Your task to perform on an android device: turn off translation in the chrome app Image 0: 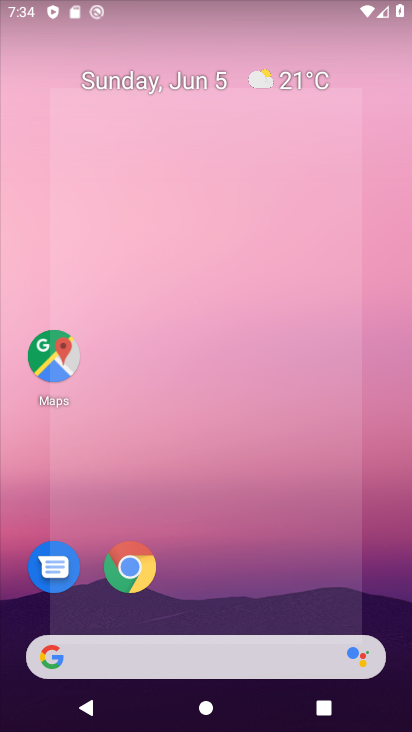
Step 0: click (136, 566)
Your task to perform on an android device: turn off translation in the chrome app Image 1: 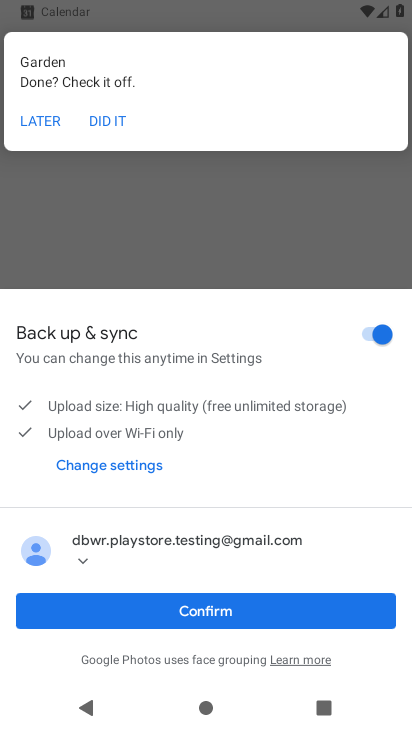
Step 1: click (234, 610)
Your task to perform on an android device: turn off translation in the chrome app Image 2: 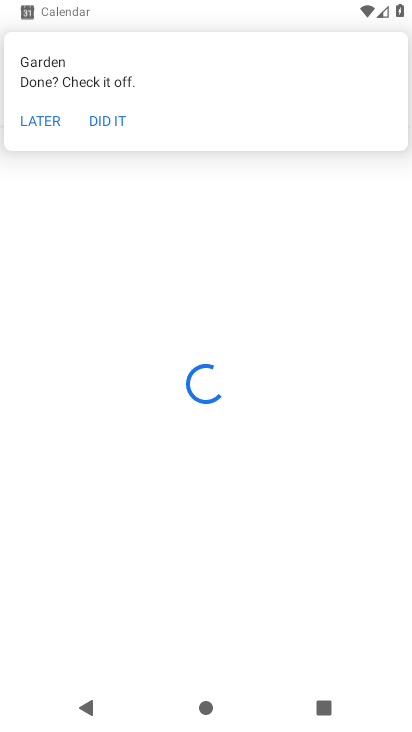
Step 2: press home button
Your task to perform on an android device: turn off translation in the chrome app Image 3: 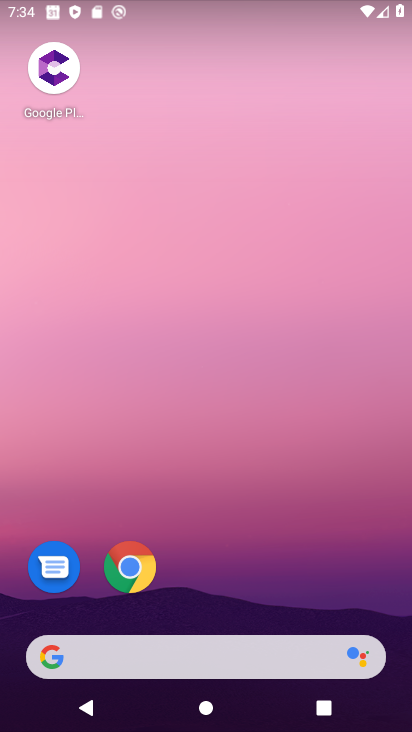
Step 3: click (143, 572)
Your task to perform on an android device: turn off translation in the chrome app Image 4: 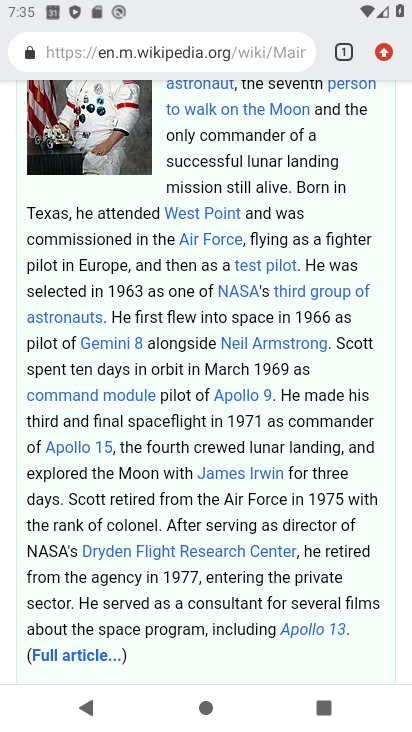
Step 4: click (337, 47)
Your task to perform on an android device: turn off translation in the chrome app Image 5: 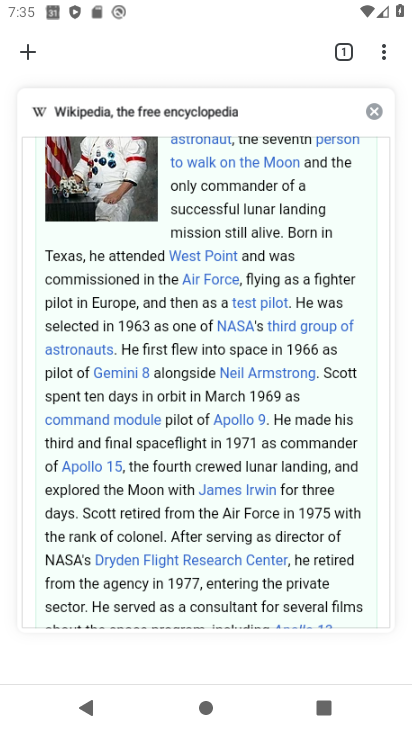
Step 5: click (377, 115)
Your task to perform on an android device: turn off translation in the chrome app Image 6: 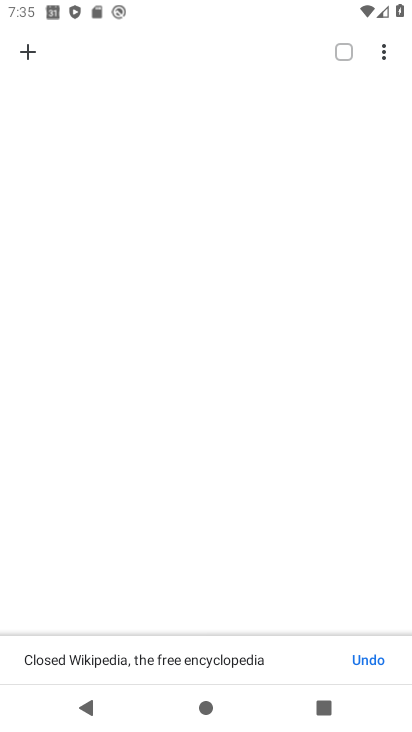
Step 6: click (383, 55)
Your task to perform on an android device: turn off translation in the chrome app Image 7: 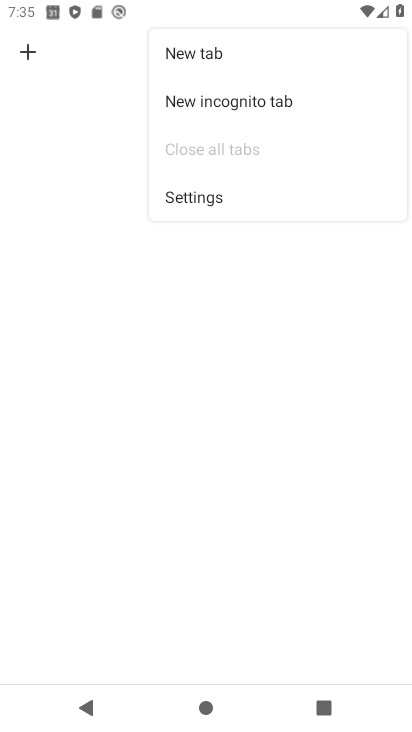
Step 7: click (232, 195)
Your task to perform on an android device: turn off translation in the chrome app Image 8: 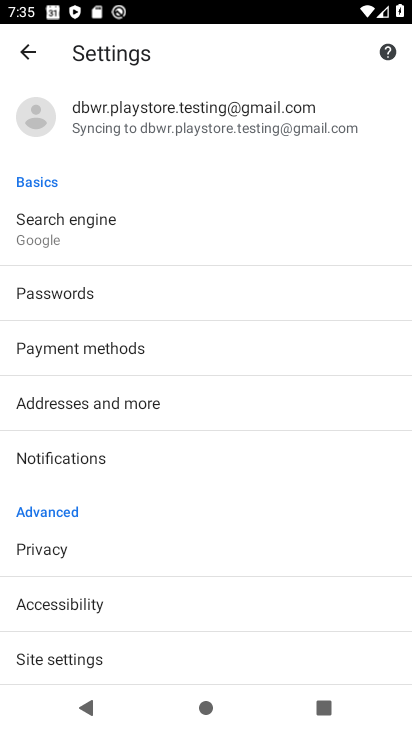
Step 8: drag from (63, 603) to (63, 296)
Your task to perform on an android device: turn off translation in the chrome app Image 9: 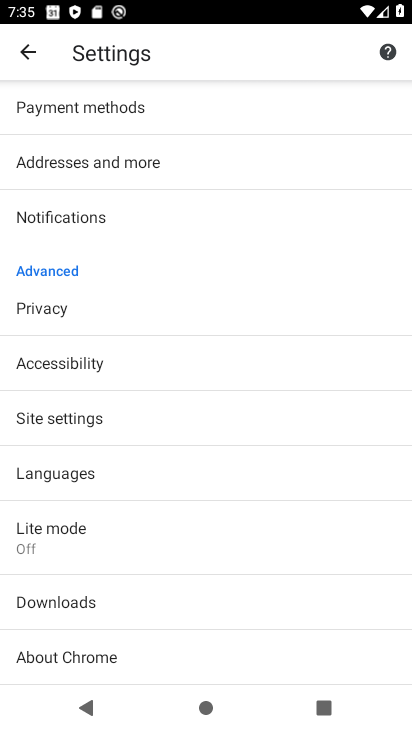
Step 9: click (79, 475)
Your task to perform on an android device: turn off translation in the chrome app Image 10: 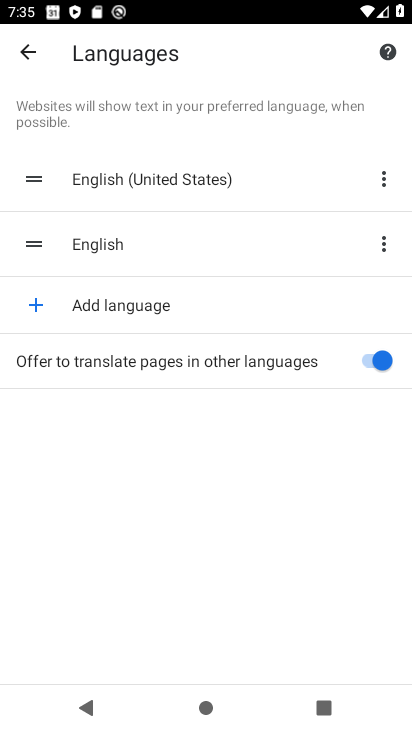
Step 10: click (371, 357)
Your task to perform on an android device: turn off translation in the chrome app Image 11: 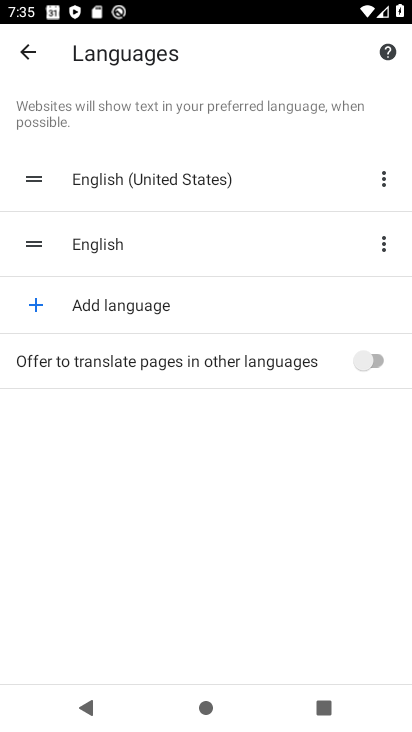
Step 11: task complete